Your task to perform on an android device: Search for vegetarian restaurants on Maps Image 0: 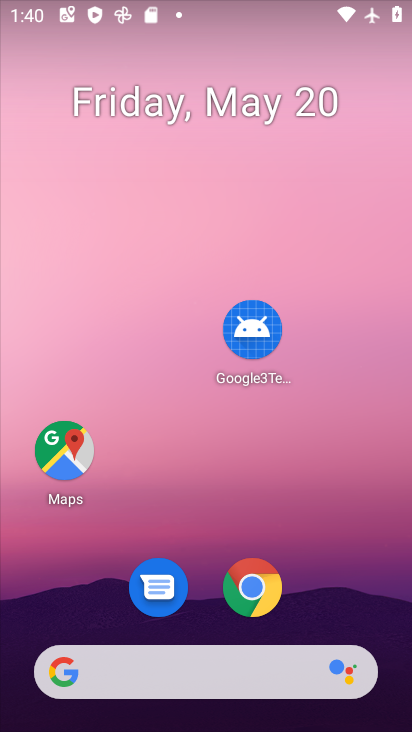
Step 0: click (63, 442)
Your task to perform on an android device: Search for vegetarian restaurants on Maps Image 1: 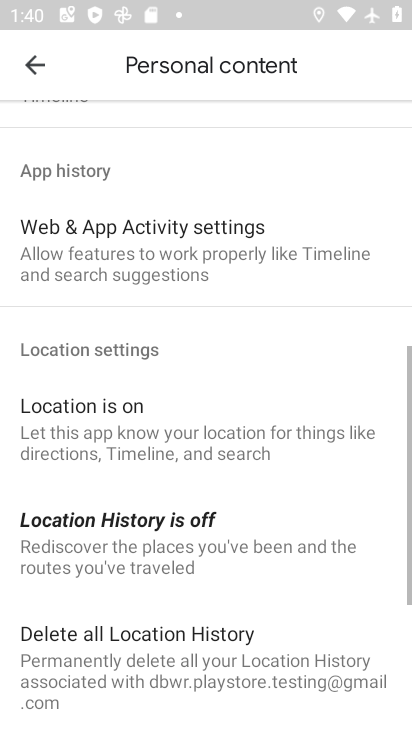
Step 1: click (32, 64)
Your task to perform on an android device: Search for vegetarian restaurants on Maps Image 2: 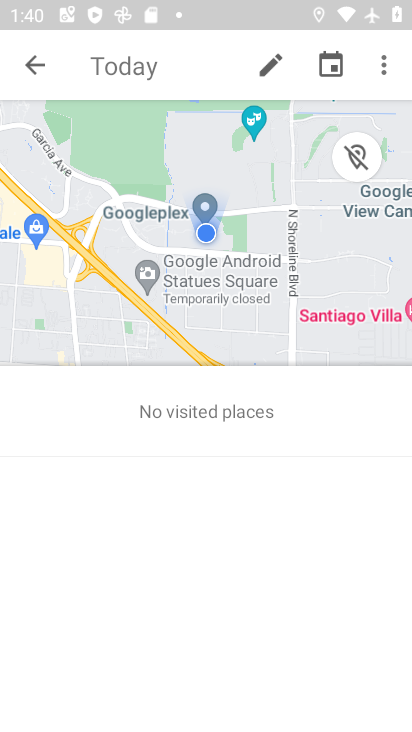
Step 2: click (31, 62)
Your task to perform on an android device: Search for vegetarian restaurants on Maps Image 3: 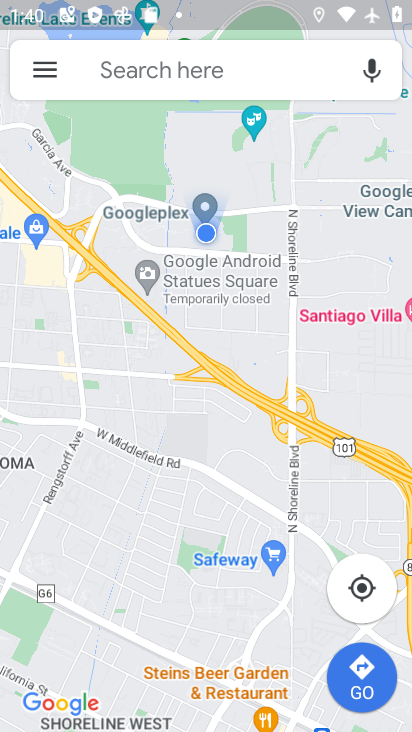
Step 3: click (196, 59)
Your task to perform on an android device: Search for vegetarian restaurants on Maps Image 4: 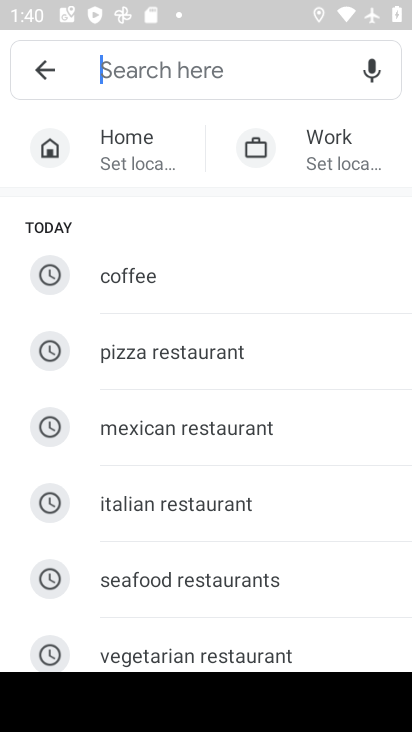
Step 4: click (243, 643)
Your task to perform on an android device: Search for vegetarian restaurants on Maps Image 5: 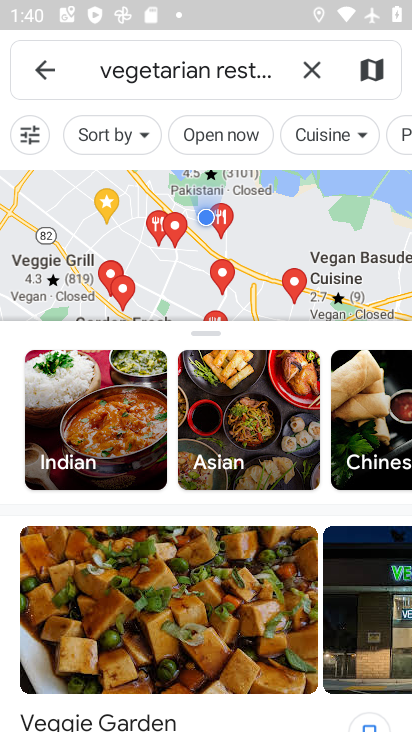
Step 5: task complete